Your task to perform on an android device: Go to calendar. Show me events next week Image 0: 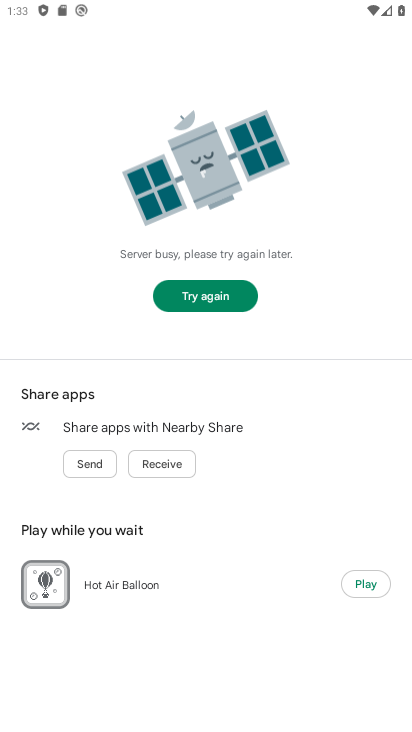
Step 0: press home button
Your task to perform on an android device: Go to calendar. Show me events next week Image 1: 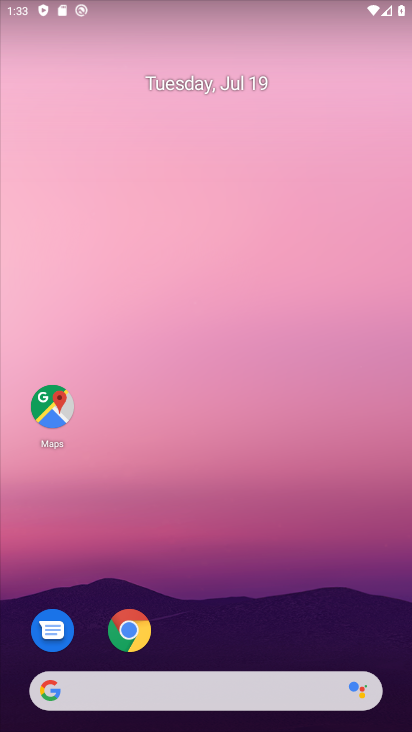
Step 1: drag from (214, 642) to (310, 15)
Your task to perform on an android device: Go to calendar. Show me events next week Image 2: 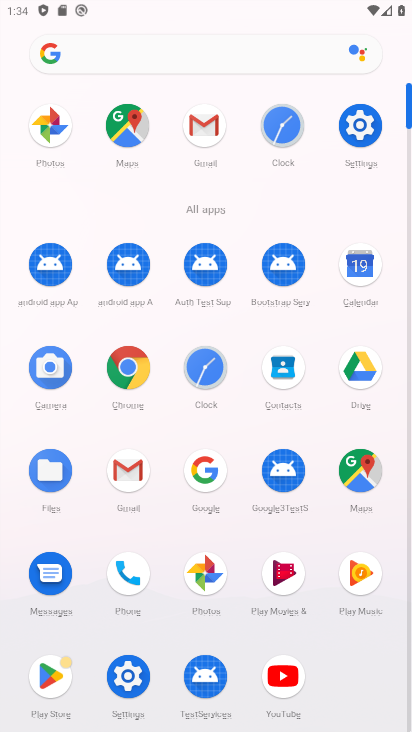
Step 2: click (358, 265)
Your task to perform on an android device: Go to calendar. Show me events next week Image 3: 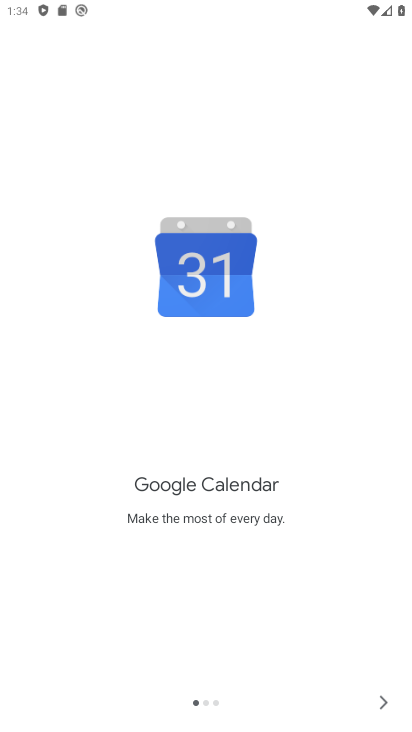
Step 3: click (381, 699)
Your task to perform on an android device: Go to calendar. Show me events next week Image 4: 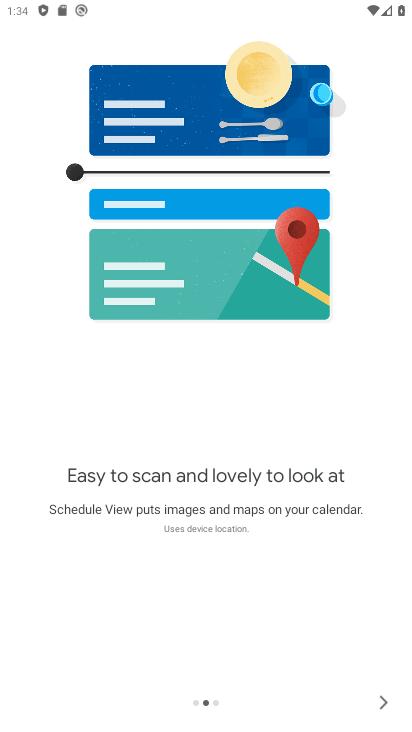
Step 4: click (381, 699)
Your task to perform on an android device: Go to calendar. Show me events next week Image 5: 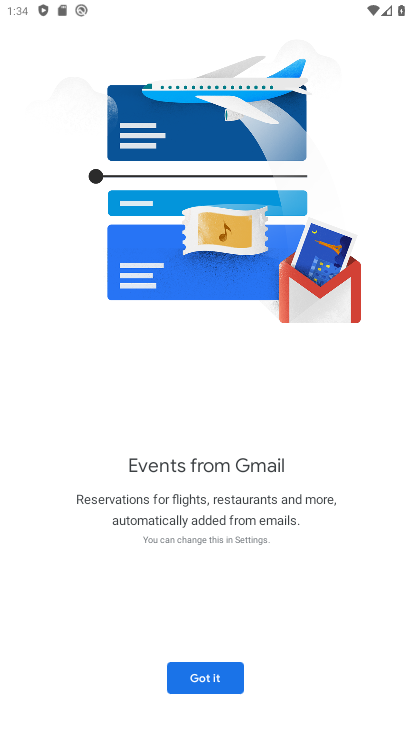
Step 5: click (204, 676)
Your task to perform on an android device: Go to calendar. Show me events next week Image 6: 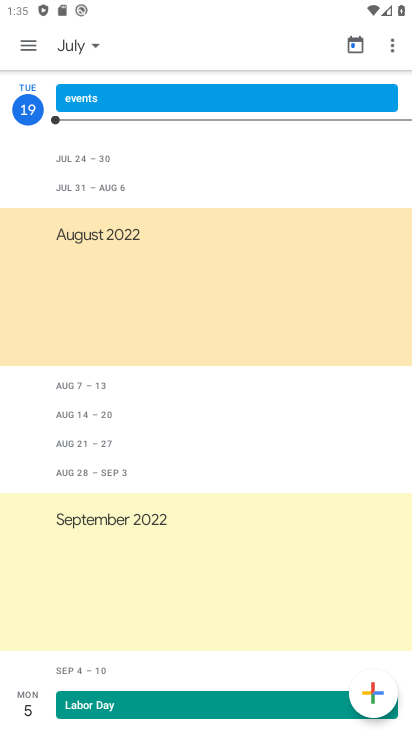
Step 6: click (27, 44)
Your task to perform on an android device: Go to calendar. Show me events next week Image 7: 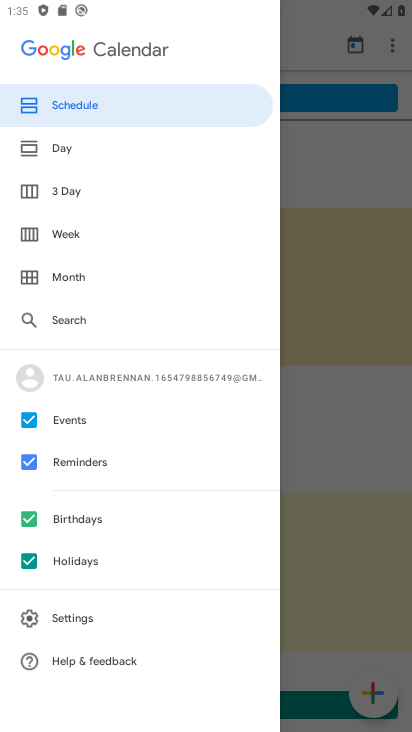
Step 7: click (51, 227)
Your task to perform on an android device: Go to calendar. Show me events next week Image 8: 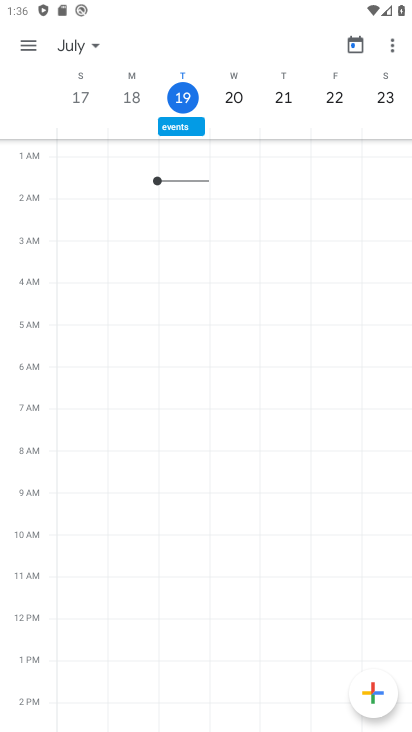
Step 8: task complete